Your task to perform on an android device: What's the weather going to be tomorrow? Image 0: 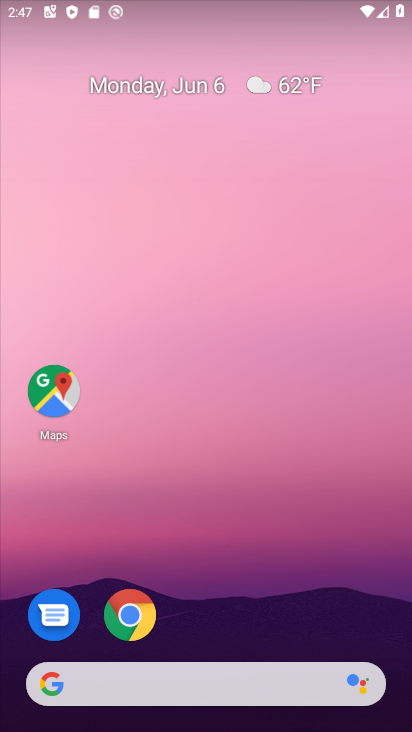
Step 0: drag from (129, 275) to (406, 334)
Your task to perform on an android device: What's the weather going to be tomorrow? Image 1: 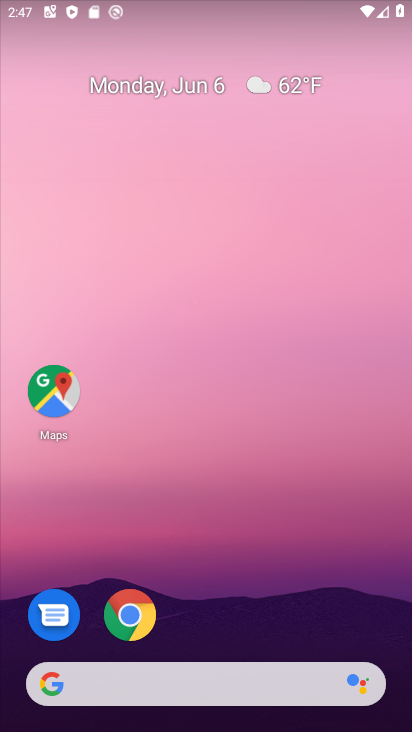
Step 1: drag from (16, 260) to (409, 306)
Your task to perform on an android device: What's the weather going to be tomorrow? Image 2: 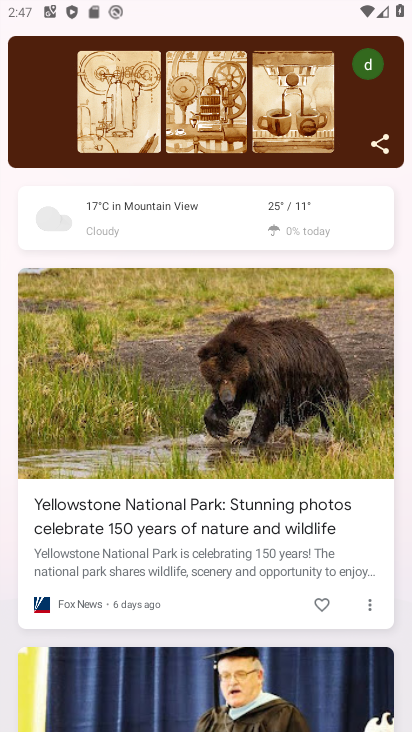
Step 2: click (188, 229)
Your task to perform on an android device: What's the weather going to be tomorrow? Image 3: 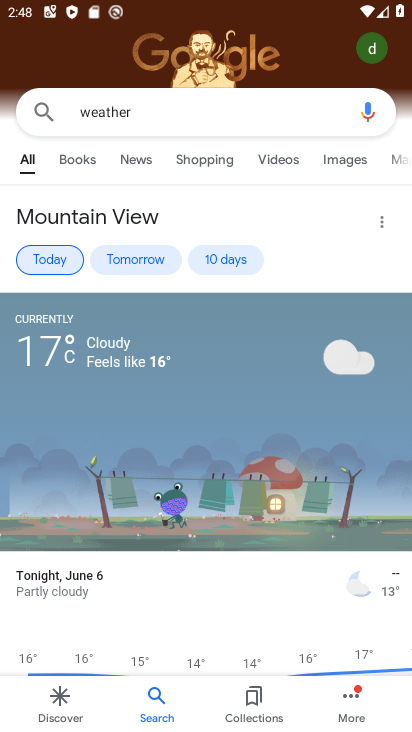
Step 3: click (147, 256)
Your task to perform on an android device: What's the weather going to be tomorrow? Image 4: 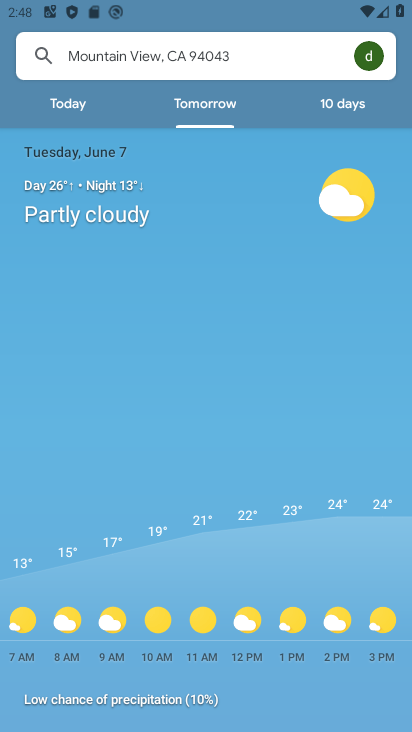
Step 4: task complete